Your task to perform on an android device: Open accessibility settings Image 0: 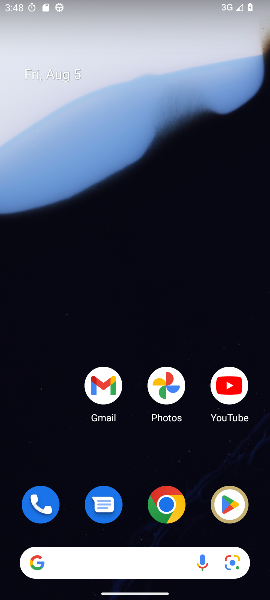
Step 0: drag from (68, 504) to (207, 9)
Your task to perform on an android device: Open accessibility settings Image 1: 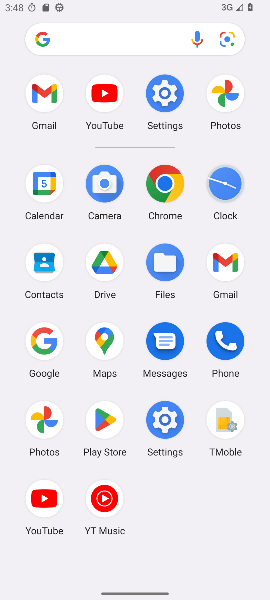
Step 1: click (163, 427)
Your task to perform on an android device: Open accessibility settings Image 2: 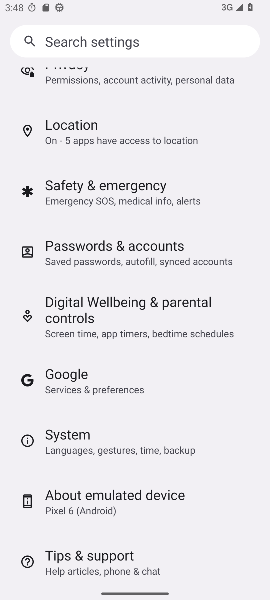
Step 2: drag from (127, 543) to (158, 141)
Your task to perform on an android device: Open accessibility settings Image 3: 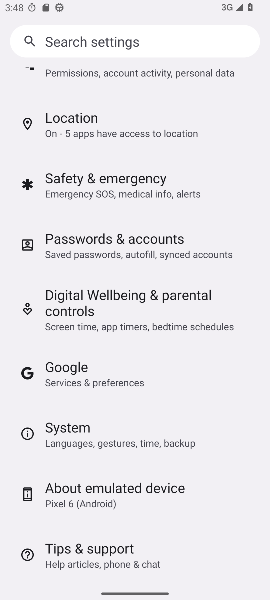
Step 3: click (189, 52)
Your task to perform on an android device: Open accessibility settings Image 4: 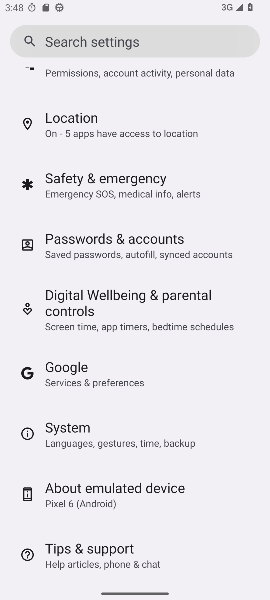
Step 4: drag from (168, 98) to (176, 580)
Your task to perform on an android device: Open accessibility settings Image 5: 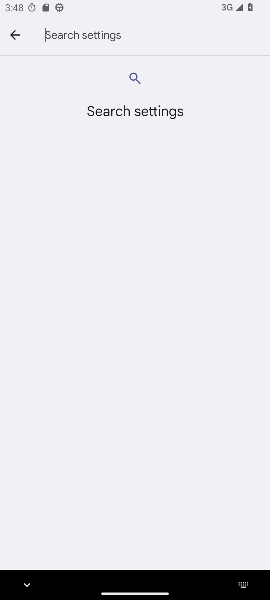
Step 5: click (17, 27)
Your task to perform on an android device: Open accessibility settings Image 6: 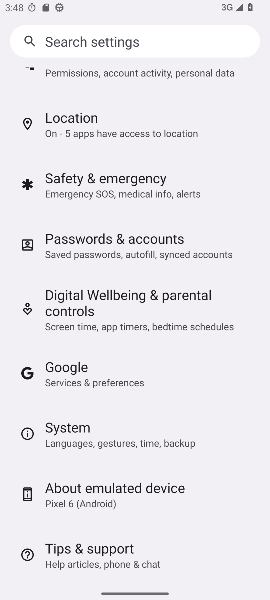
Step 6: drag from (203, 117) to (217, 574)
Your task to perform on an android device: Open accessibility settings Image 7: 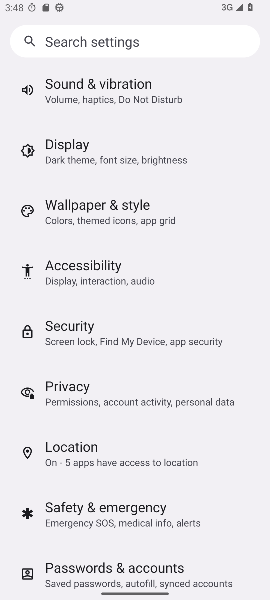
Step 7: click (71, 268)
Your task to perform on an android device: Open accessibility settings Image 8: 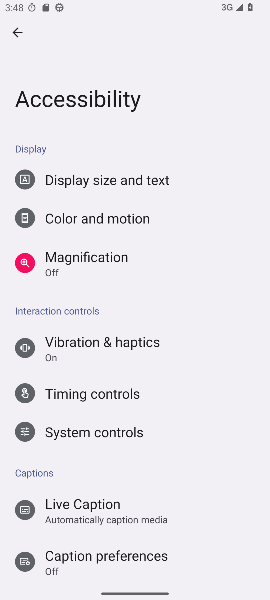
Step 8: task complete